Your task to perform on an android device: Do I have any events this weekend? Image 0: 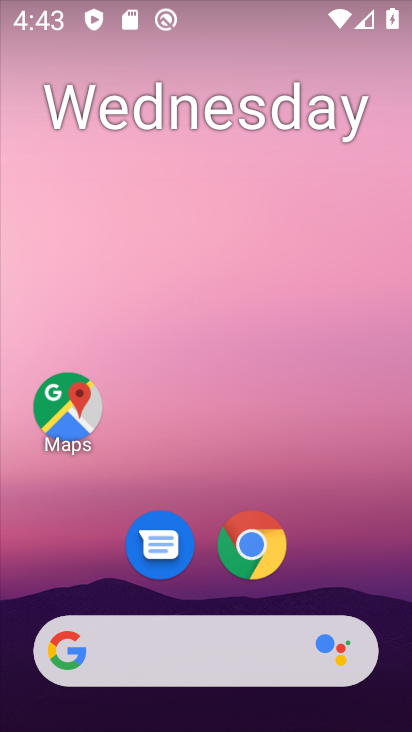
Step 0: press home button
Your task to perform on an android device: Do I have any events this weekend? Image 1: 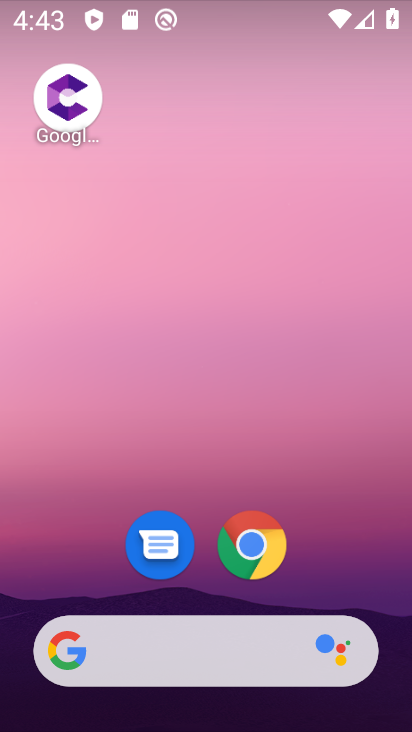
Step 1: press home button
Your task to perform on an android device: Do I have any events this weekend? Image 2: 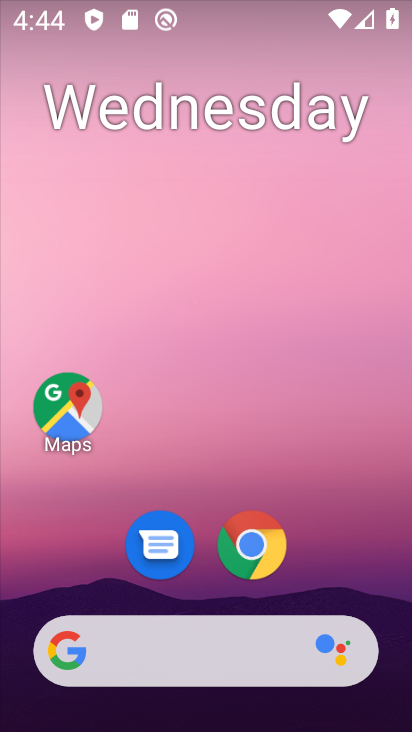
Step 2: drag from (338, 385) to (334, 3)
Your task to perform on an android device: Do I have any events this weekend? Image 3: 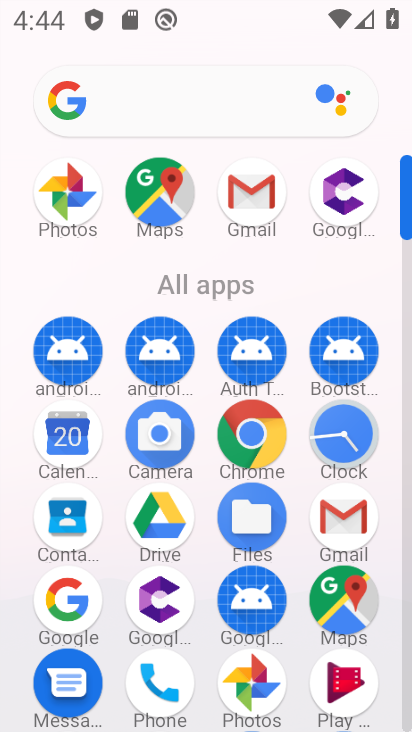
Step 3: drag from (290, 536) to (323, 244)
Your task to perform on an android device: Do I have any events this weekend? Image 4: 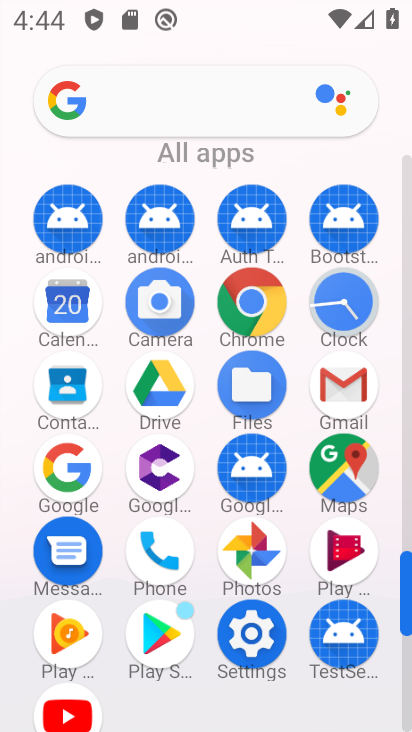
Step 4: click (57, 296)
Your task to perform on an android device: Do I have any events this weekend? Image 5: 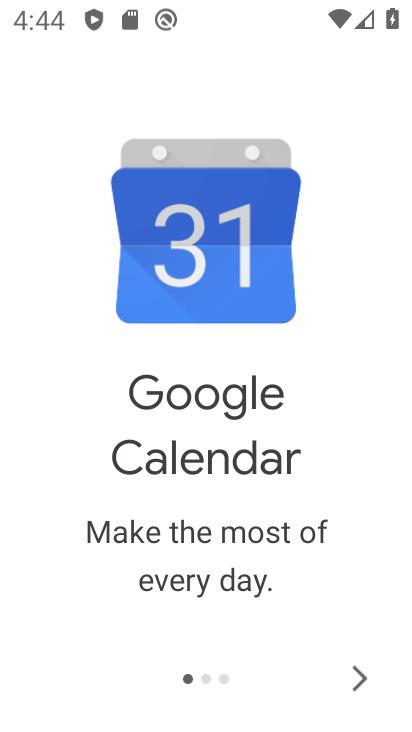
Step 5: click (353, 674)
Your task to perform on an android device: Do I have any events this weekend? Image 6: 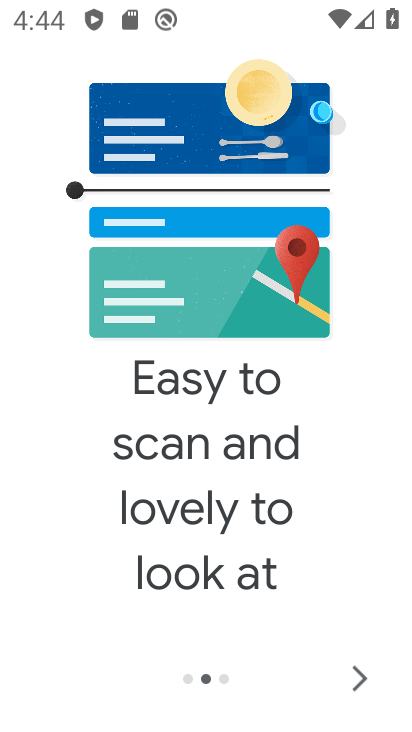
Step 6: click (353, 674)
Your task to perform on an android device: Do I have any events this weekend? Image 7: 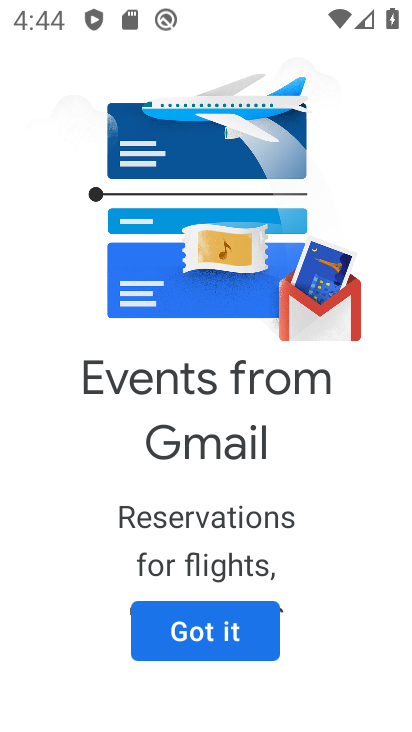
Step 7: click (353, 674)
Your task to perform on an android device: Do I have any events this weekend? Image 8: 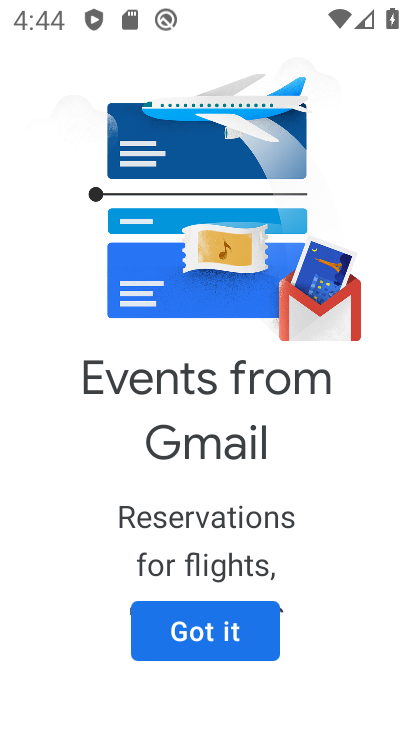
Step 8: click (247, 641)
Your task to perform on an android device: Do I have any events this weekend? Image 9: 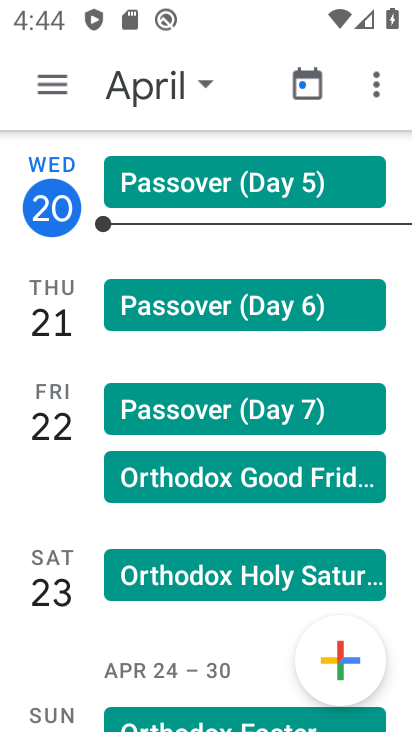
Step 9: click (133, 79)
Your task to perform on an android device: Do I have any events this weekend? Image 10: 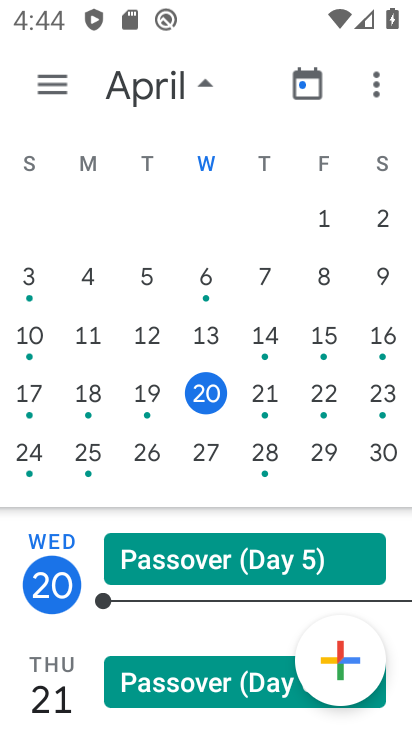
Step 10: task complete